Your task to perform on an android device: Open Google Maps and go to "Timeline" Image 0: 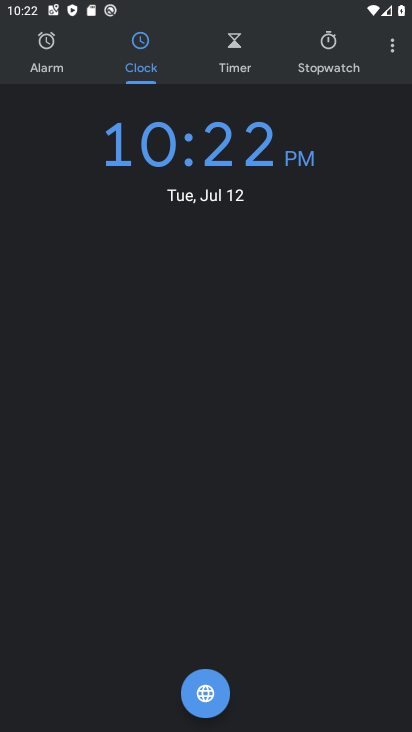
Step 0: press home button
Your task to perform on an android device: Open Google Maps and go to "Timeline" Image 1: 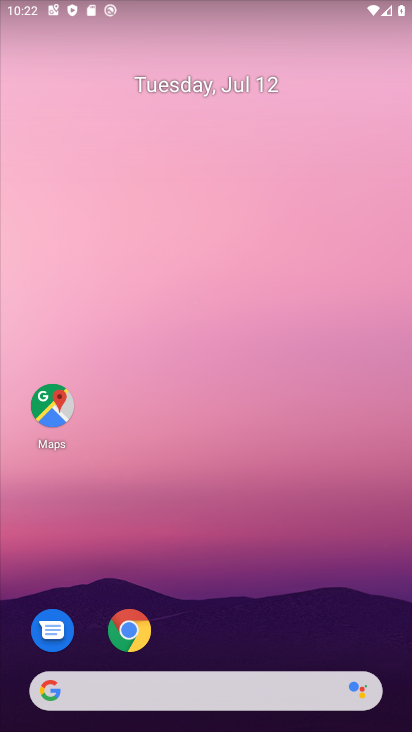
Step 1: click (57, 412)
Your task to perform on an android device: Open Google Maps and go to "Timeline" Image 2: 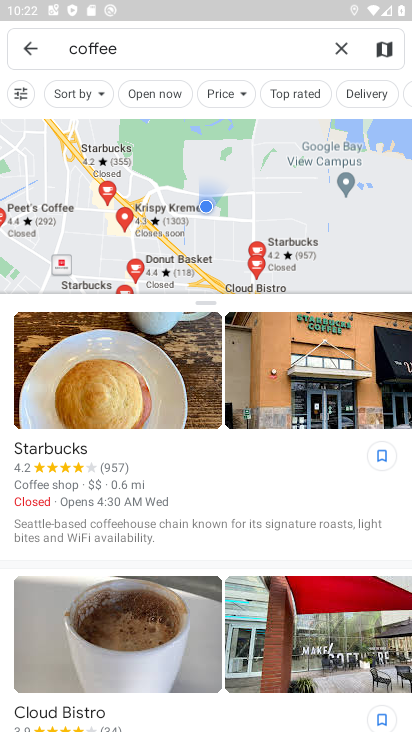
Step 2: press back button
Your task to perform on an android device: Open Google Maps and go to "Timeline" Image 3: 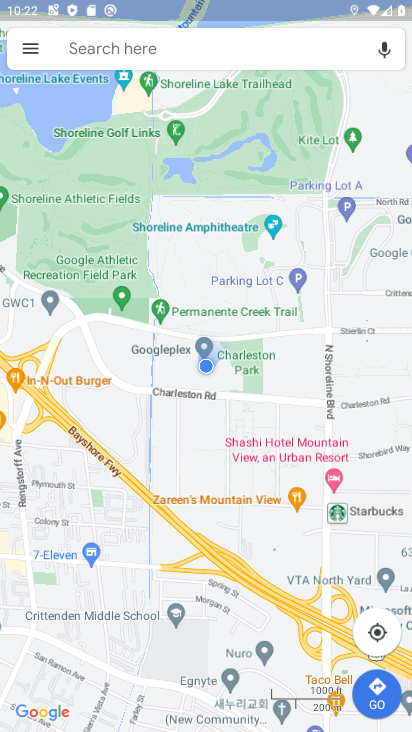
Step 3: click (28, 48)
Your task to perform on an android device: Open Google Maps and go to "Timeline" Image 4: 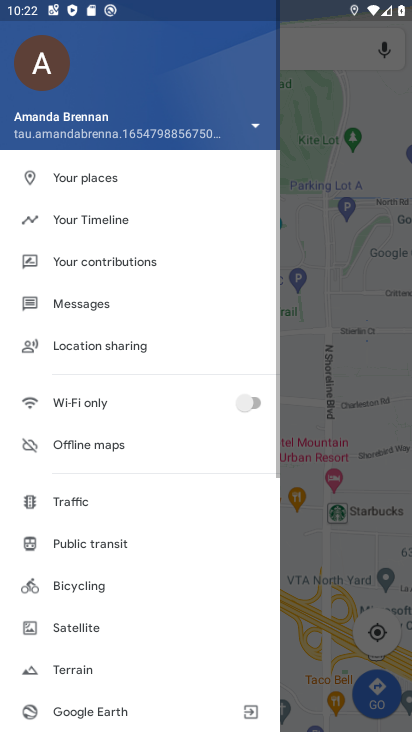
Step 4: click (94, 213)
Your task to perform on an android device: Open Google Maps and go to "Timeline" Image 5: 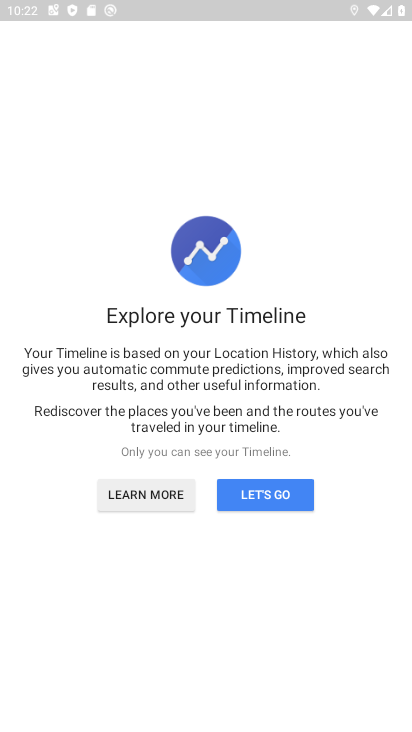
Step 5: click (251, 478)
Your task to perform on an android device: Open Google Maps and go to "Timeline" Image 6: 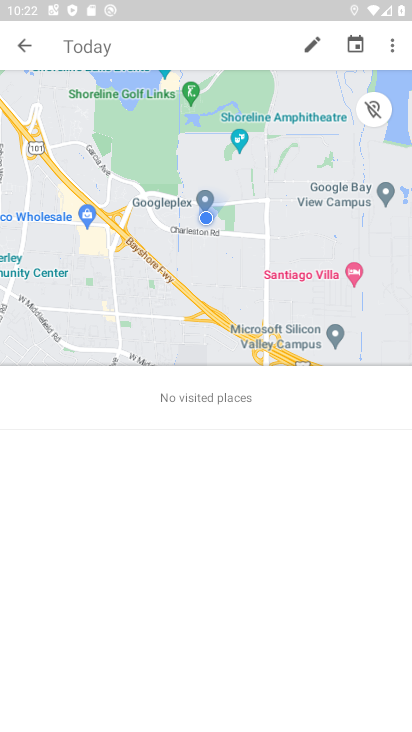
Step 6: task complete